Your task to perform on an android device: Is it going to rain tomorrow? Image 0: 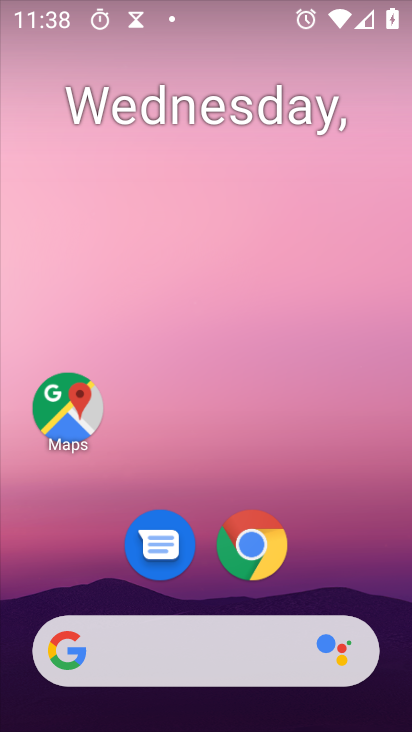
Step 0: press home button
Your task to perform on an android device: Is it going to rain tomorrow? Image 1: 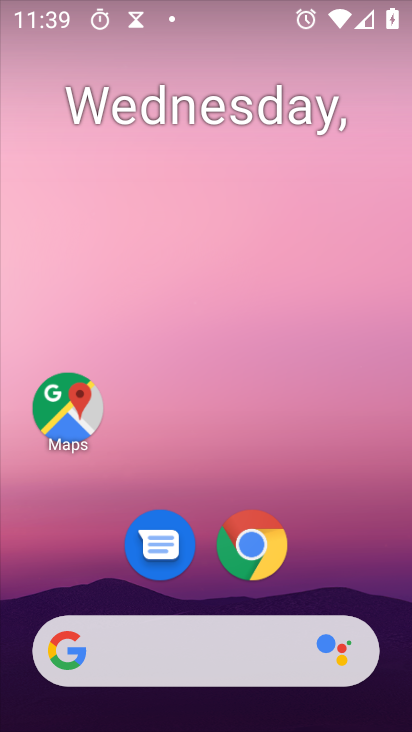
Step 1: click (81, 660)
Your task to perform on an android device: Is it going to rain tomorrow? Image 2: 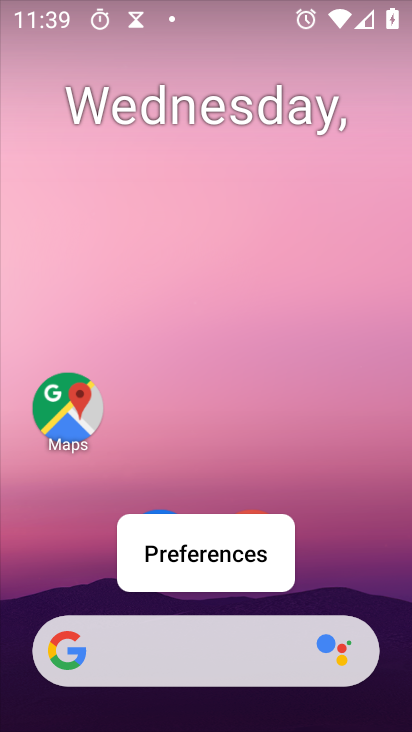
Step 2: click (63, 647)
Your task to perform on an android device: Is it going to rain tomorrow? Image 3: 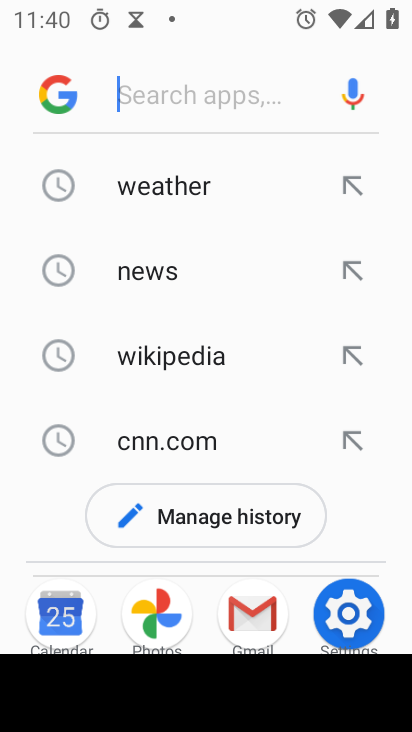
Step 3: click (129, 189)
Your task to perform on an android device: Is it going to rain tomorrow? Image 4: 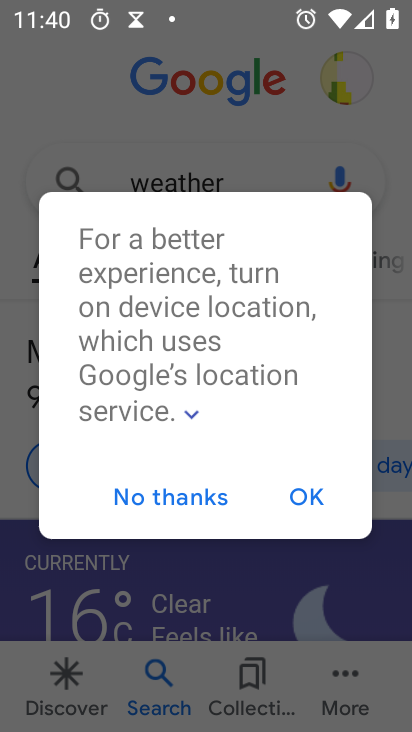
Step 4: click (293, 499)
Your task to perform on an android device: Is it going to rain tomorrow? Image 5: 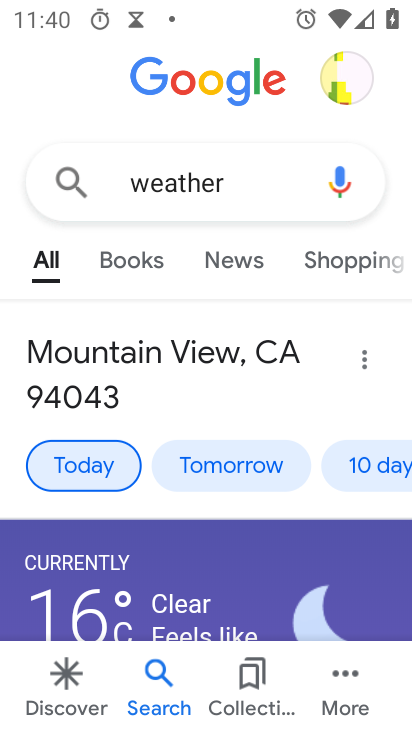
Step 5: task complete